Your task to perform on an android device: Search for "dell alienware" on target, select the first entry, and add it to the cart. Image 0: 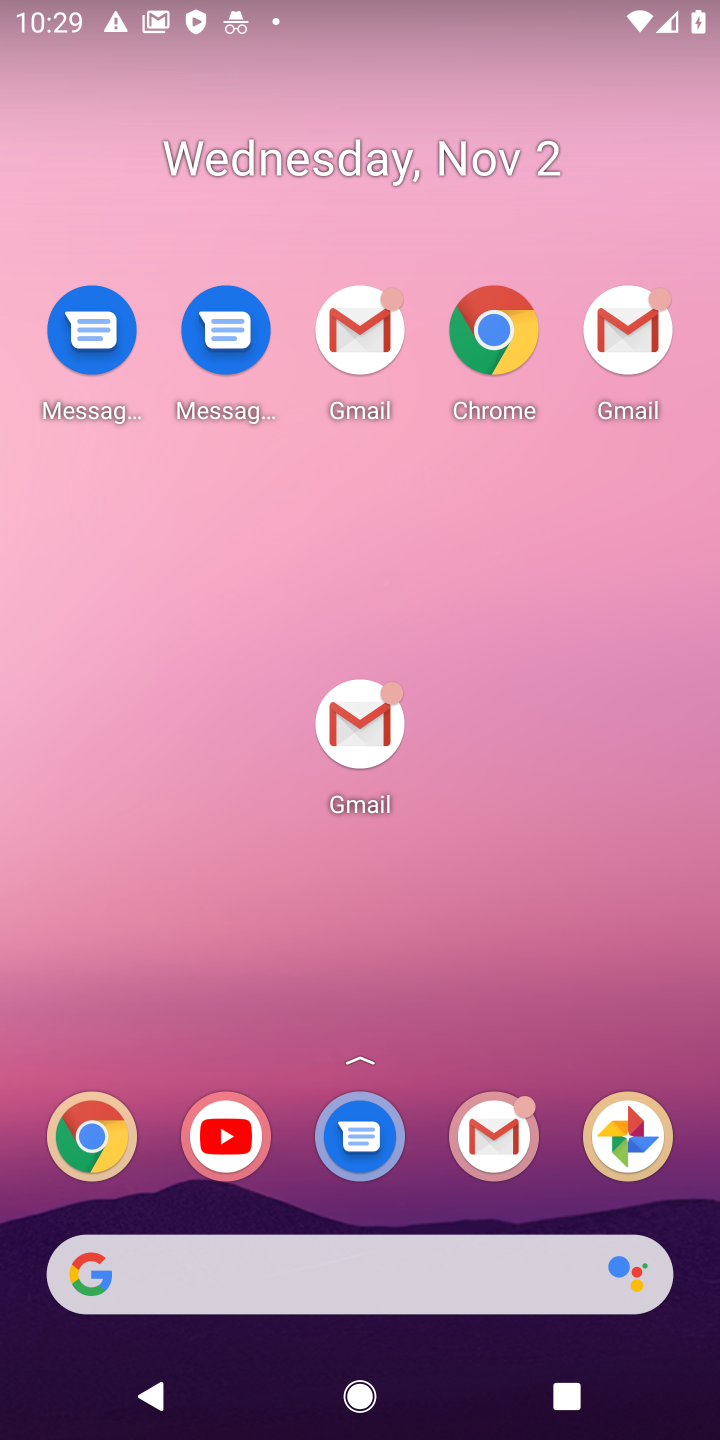
Step 0: drag from (289, 1020) to (313, 490)
Your task to perform on an android device: Search for "dell alienware" on target, select the first entry, and add it to the cart. Image 1: 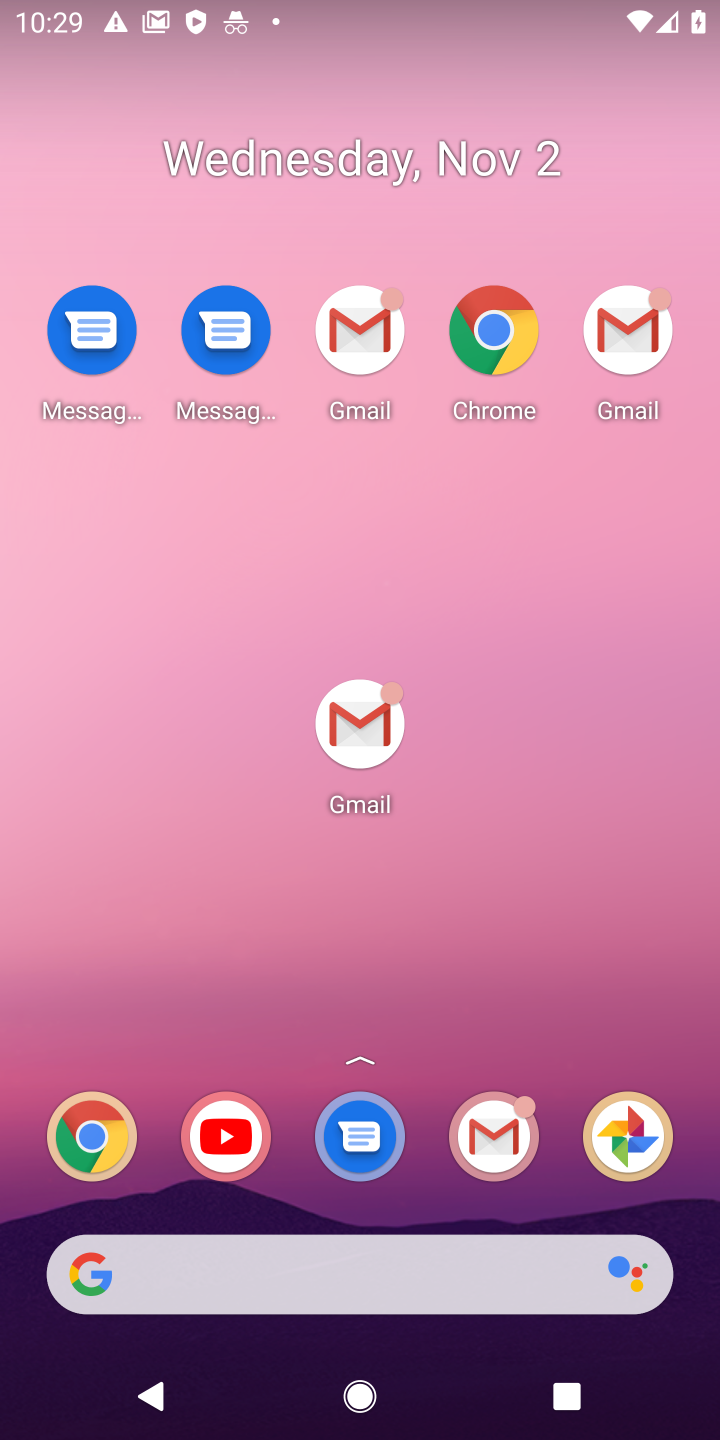
Step 1: drag from (329, 1260) to (335, 472)
Your task to perform on an android device: Search for "dell alienware" on target, select the first entry, and add it to the cart. Image 2: 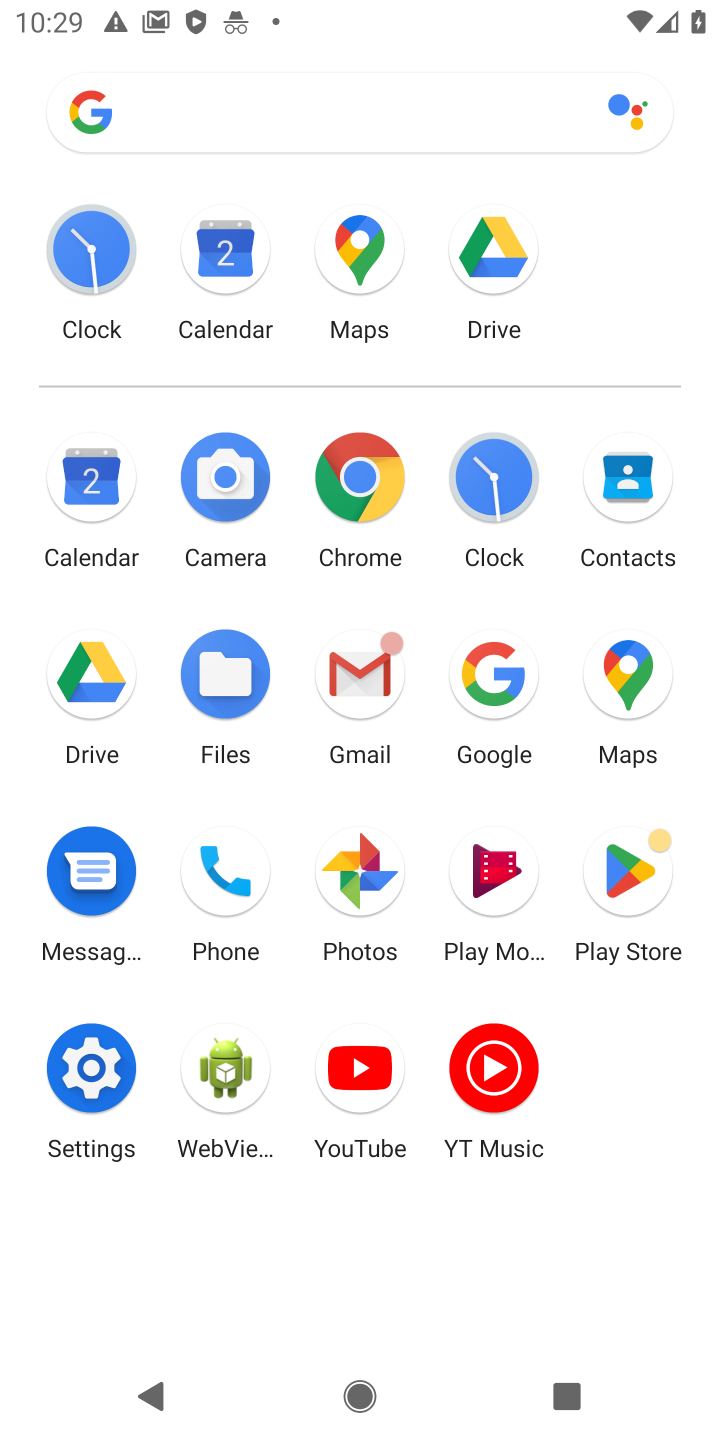
Step 2: click (486, 642)
Your task to perform on an android device: Search for "dell alienware" on target, select the first entry, and add it to the cart. Image 3: 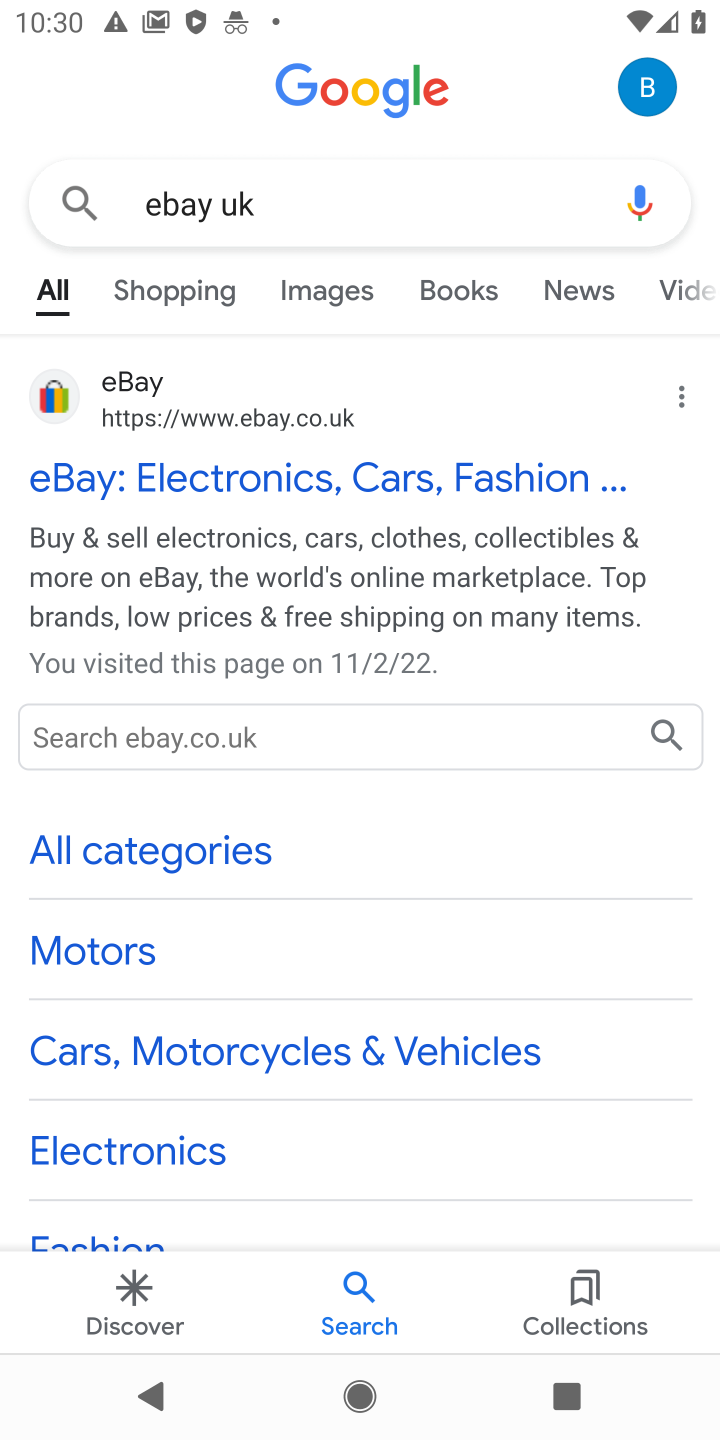
Step 3: click (308, 196)
Your task to perform on an android device: Search for "dell alienware" on target, select the first entry, and add it to the cart. Image 4: 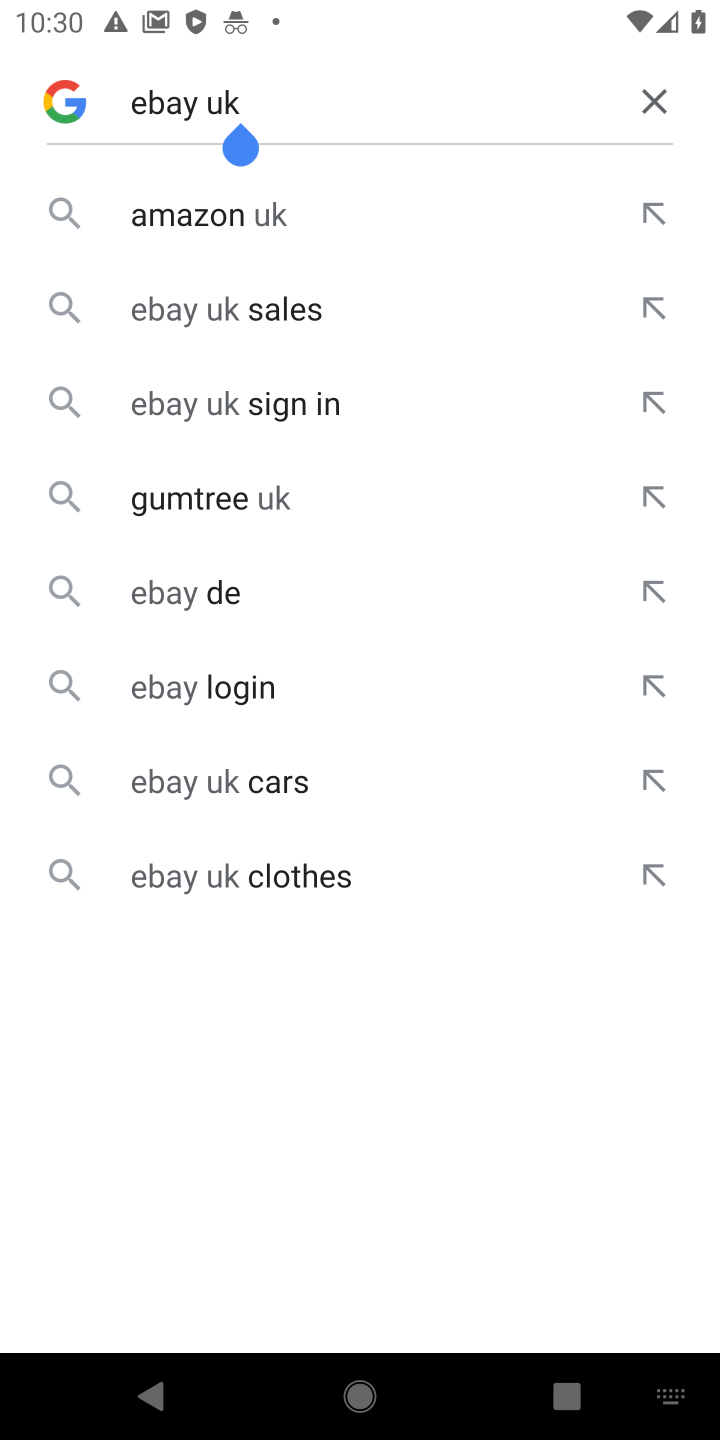
Step 4: click (662, 88)
Your task to perform on an android device: Search for "dell alienware" on target, select the first entry, and add it to the cart. Image 5: 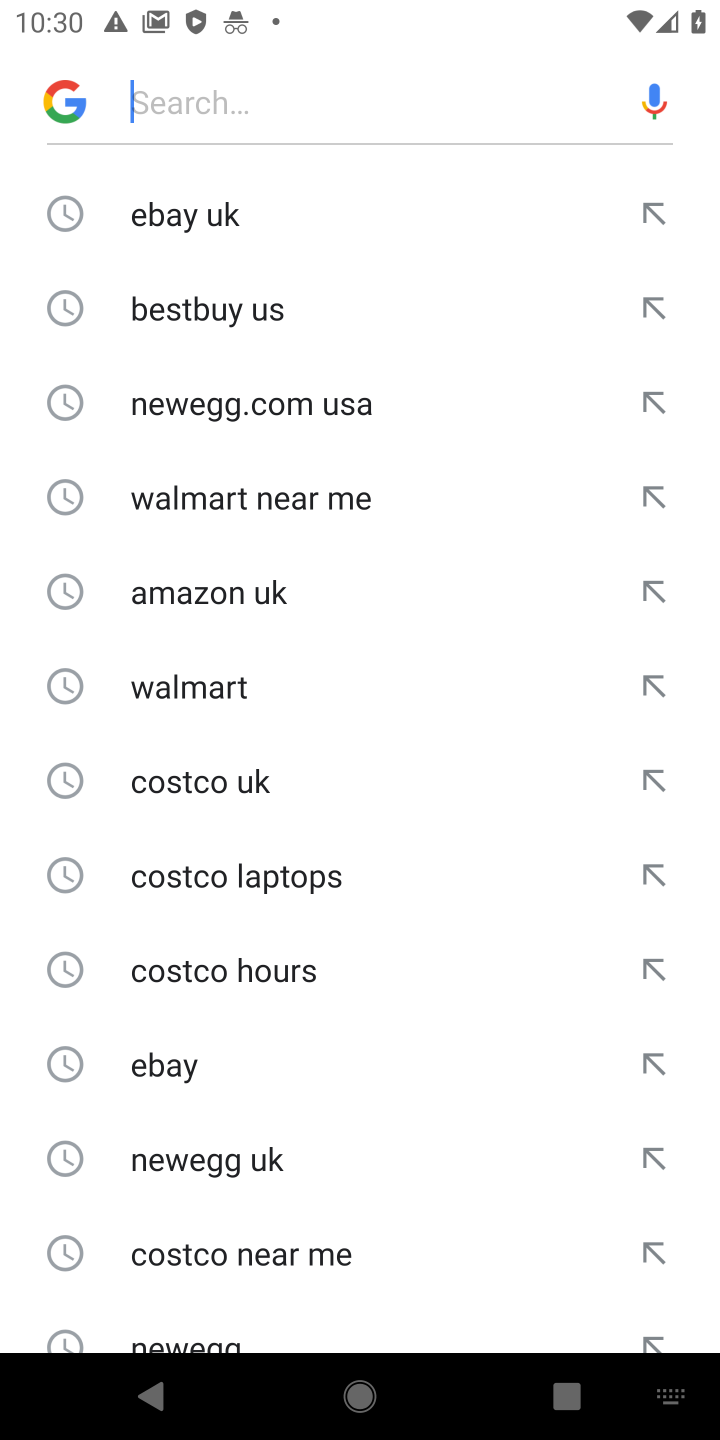
Step 5: click (418, 88)
Your task to perform on an android device: Search for "dell alienware" on target, select the first entry, and add it to the cart. Image 6: 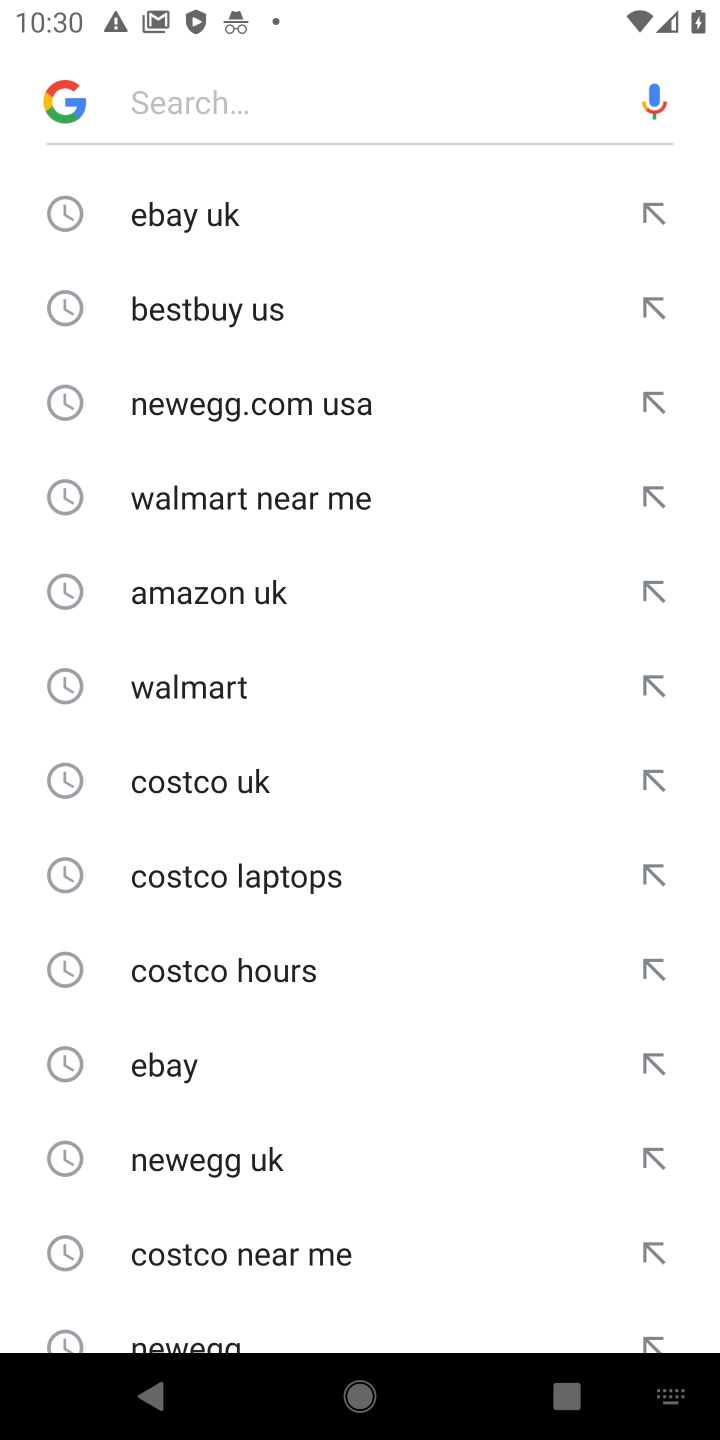
Step 6: click (307, 79)
Your task to perform on an android device: Search for "dell alienware" on target, select the first entry, and add it to the cart. Image 7: 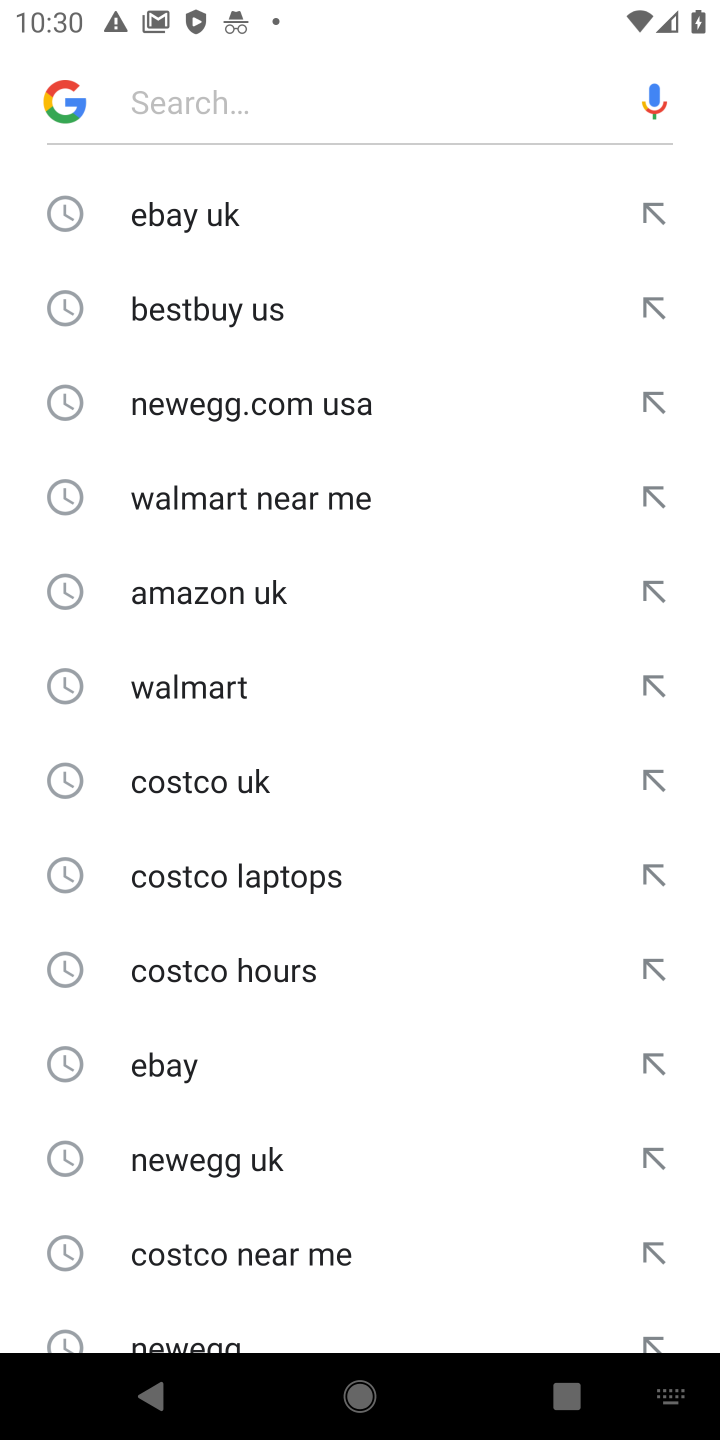
Step 7: type "target "
Your task to perform on an android device: Search for "dell alienware" on target, select the first entry, and add it to the cart. Image 8: 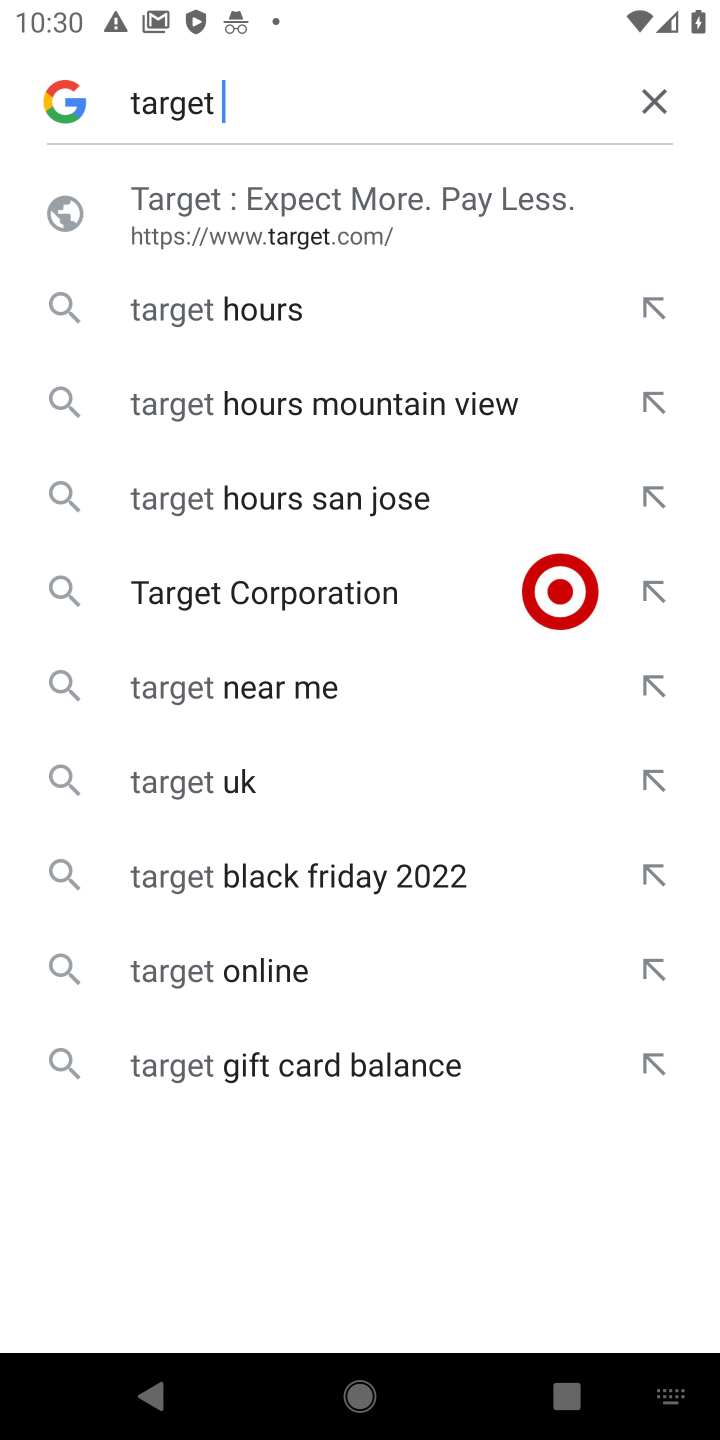
Step 8: click (215, 224)
Your task to perform on an android device: Search for "dell alienware" on target, select the first entry, and add it to the cart. Image 9: 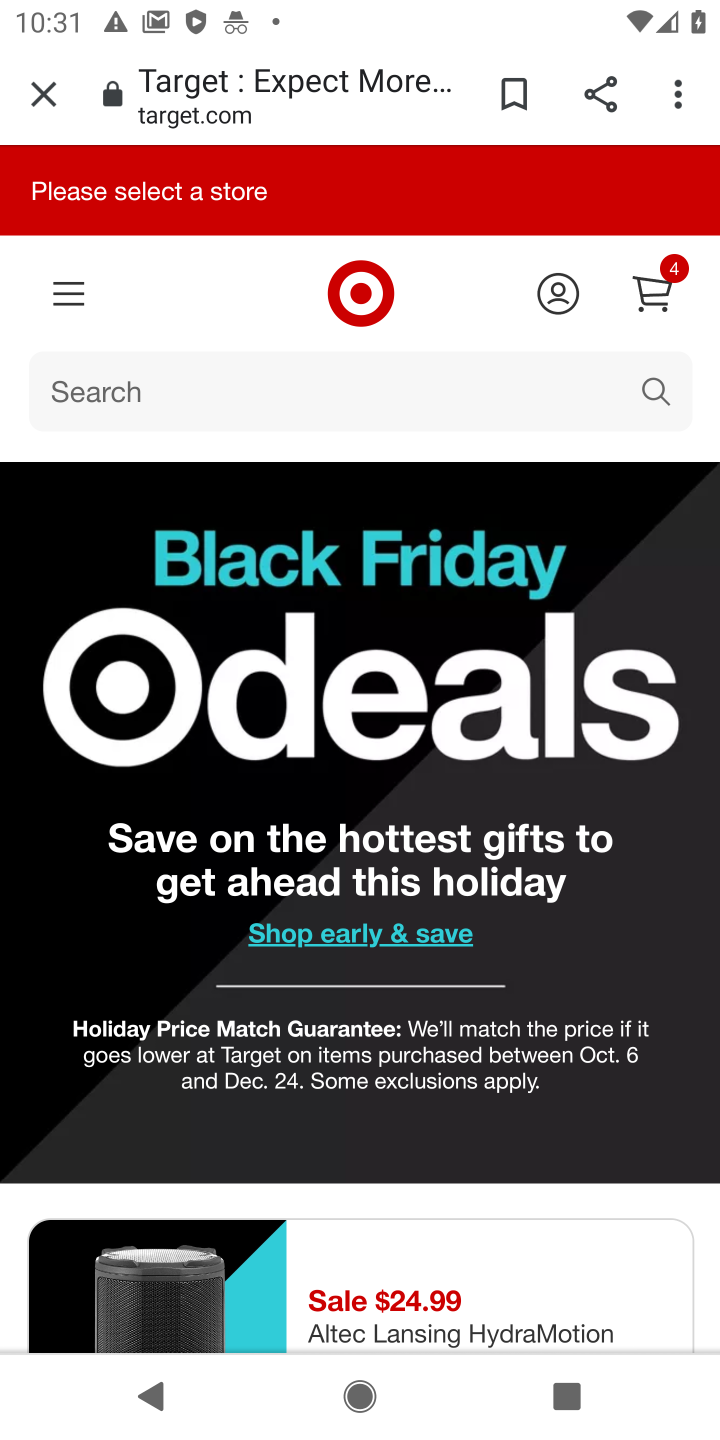
Step 9: drag from (302, 1209) to (377, 302)
Your task to perform on an android device: Search for "dell alienware" on target, select the first entry, and add it to the cart. Image 10: 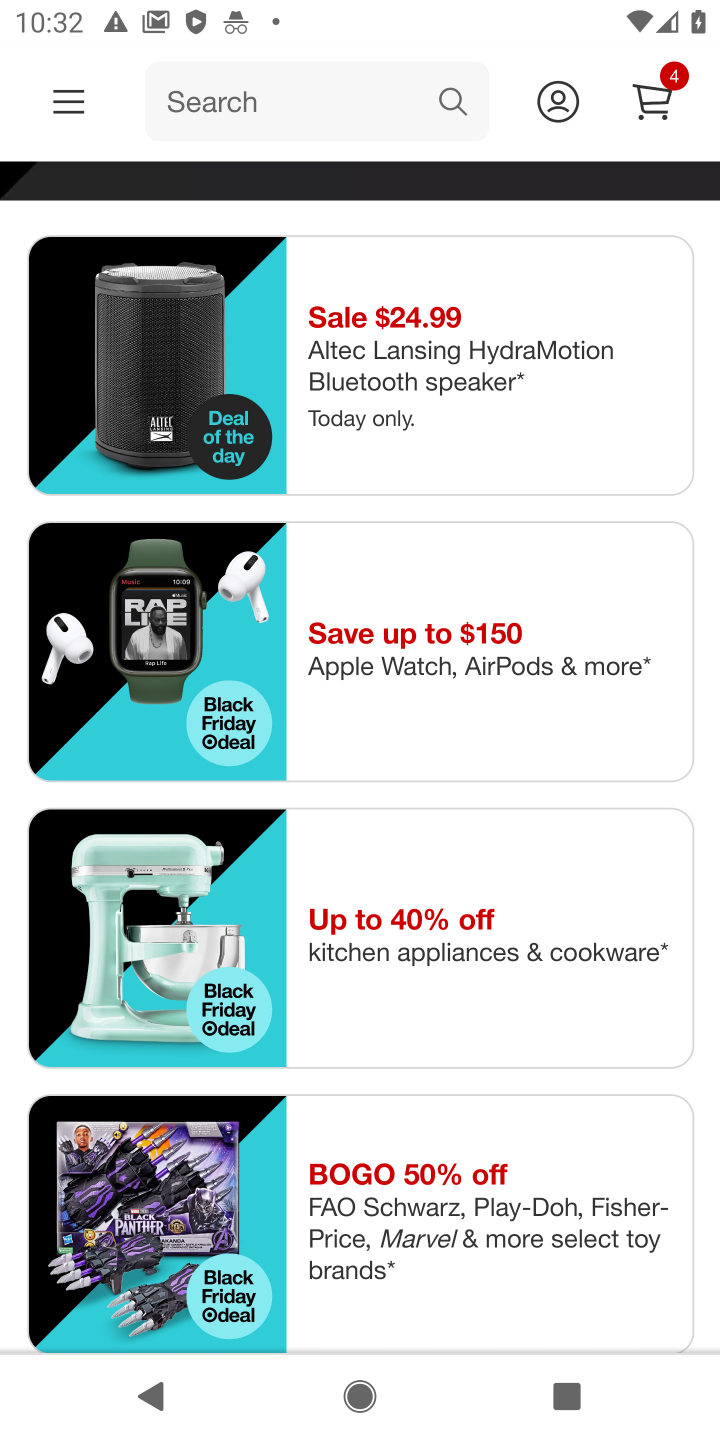
Step 10: click (215, 86)
Your task to perform on an android device: Search for "dell alienware" on target, select the first entry, and add it to the cart. Image 11: 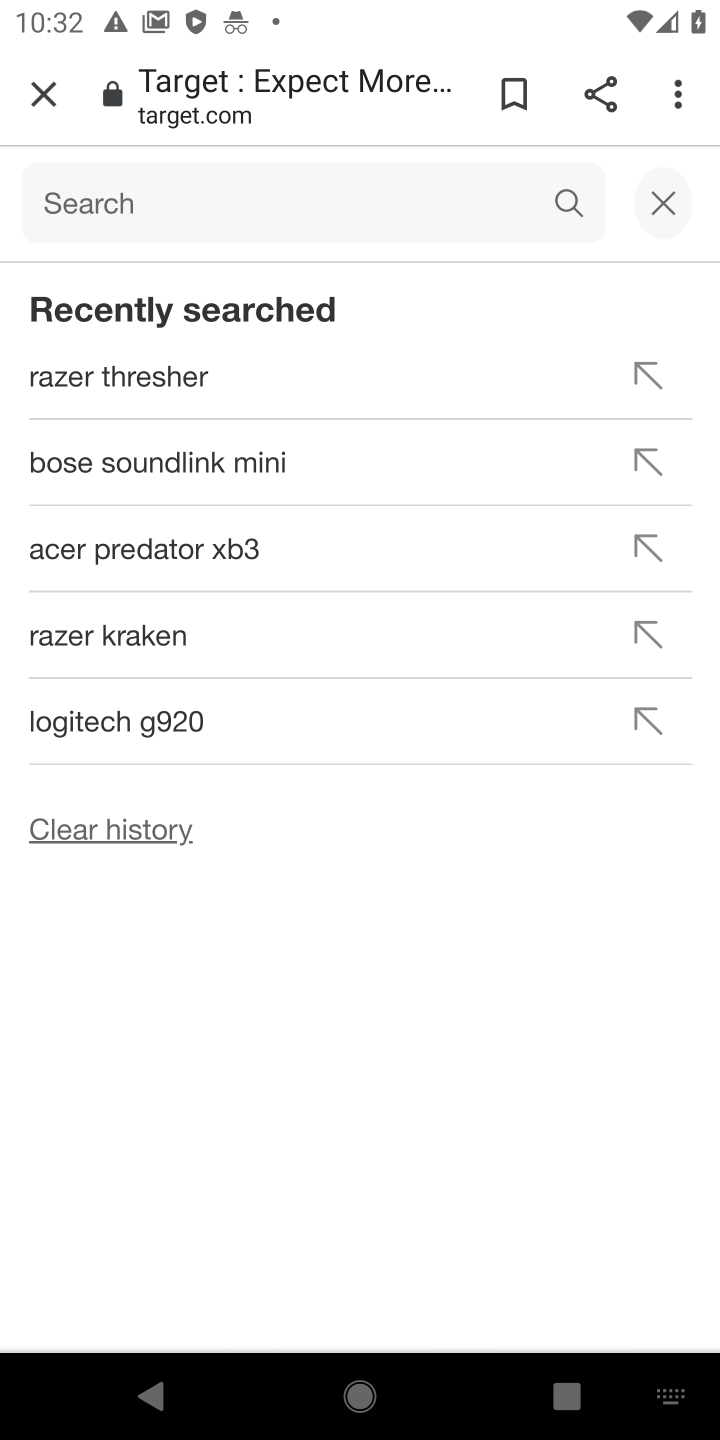
Step 11: click (263, 201)
Your task to perform on an android device: Search for "dell alienware" on target, select the first entry, and add it to the cart. Image 12: 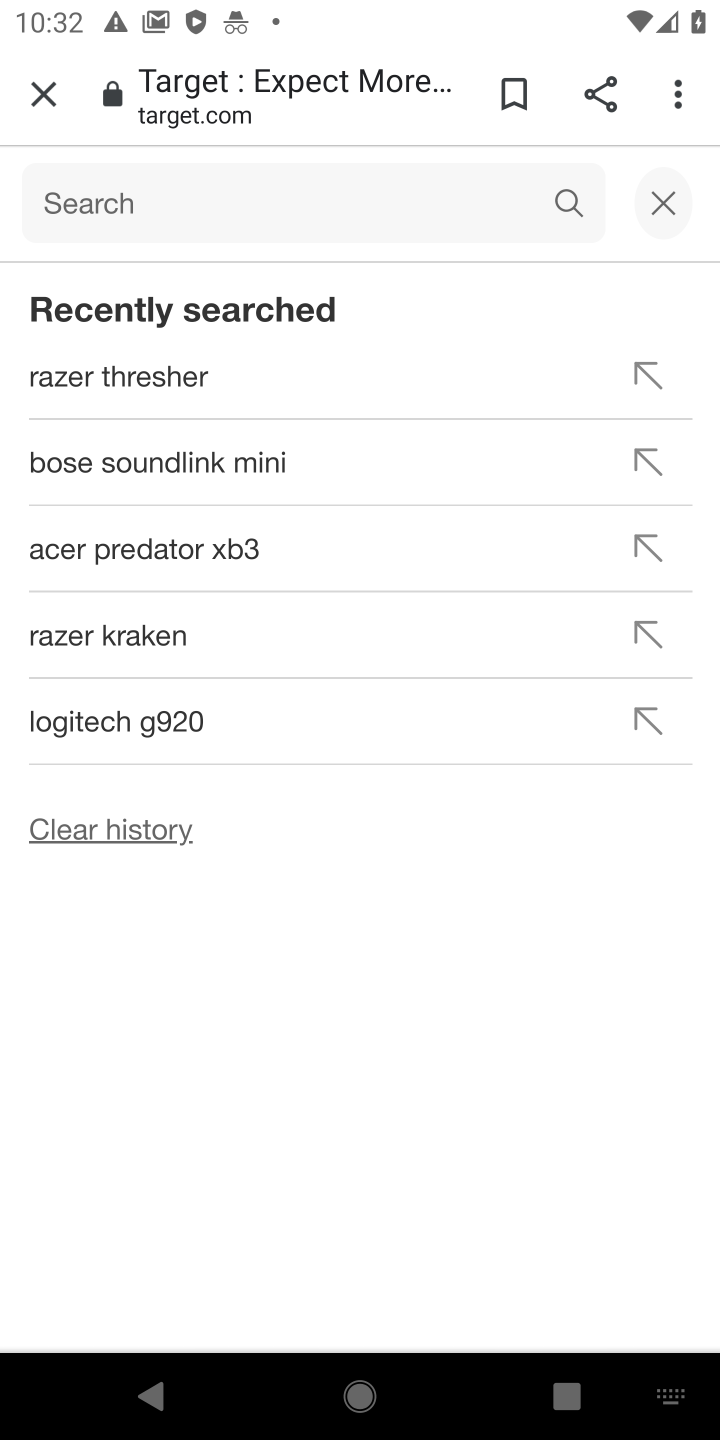
Step 12: type "dell alienware "
Your task to perform on an android device: Search for "dell alienware" on target, select the first entry, and add it to the cart. Image 13: 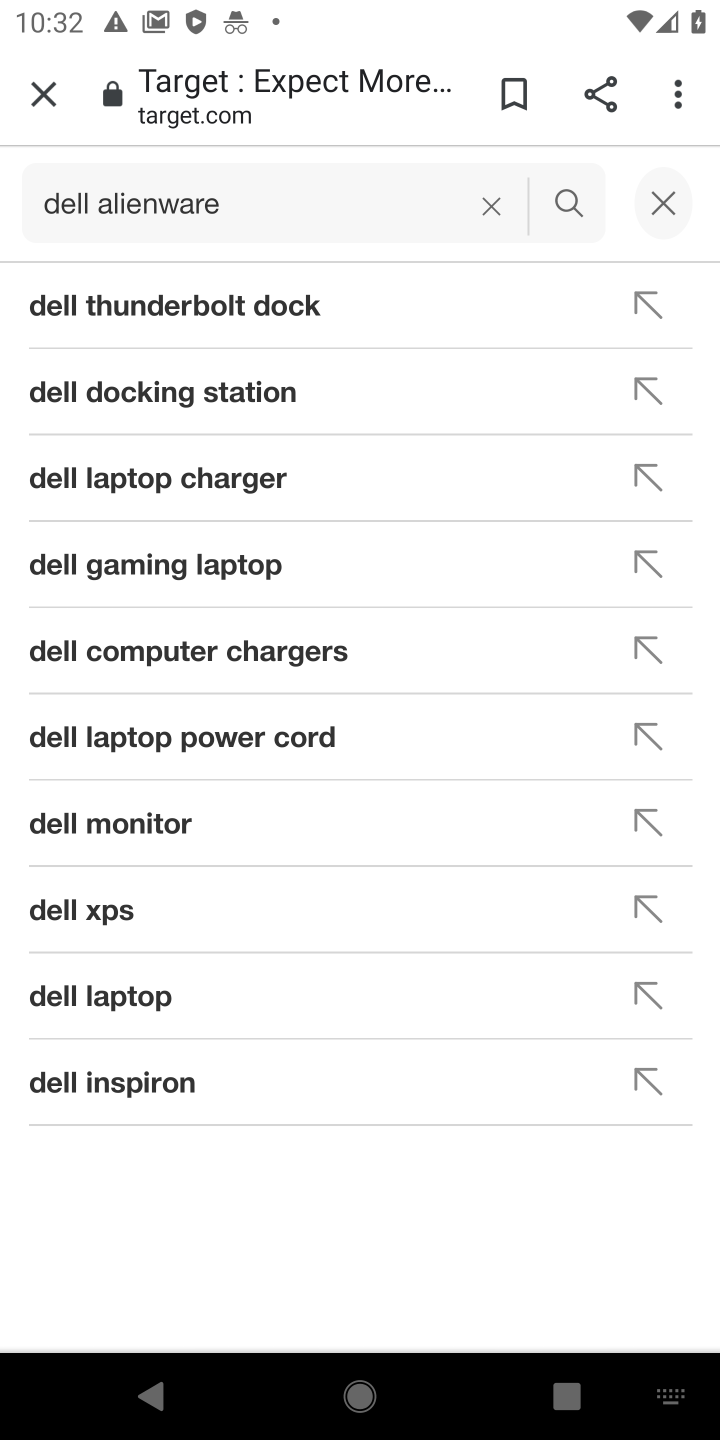
Step 13: click (254, 295)
Your task to perform on an android device: Search for "dell alienware" on target, select the first entry, and add it to the cart. Image 14: 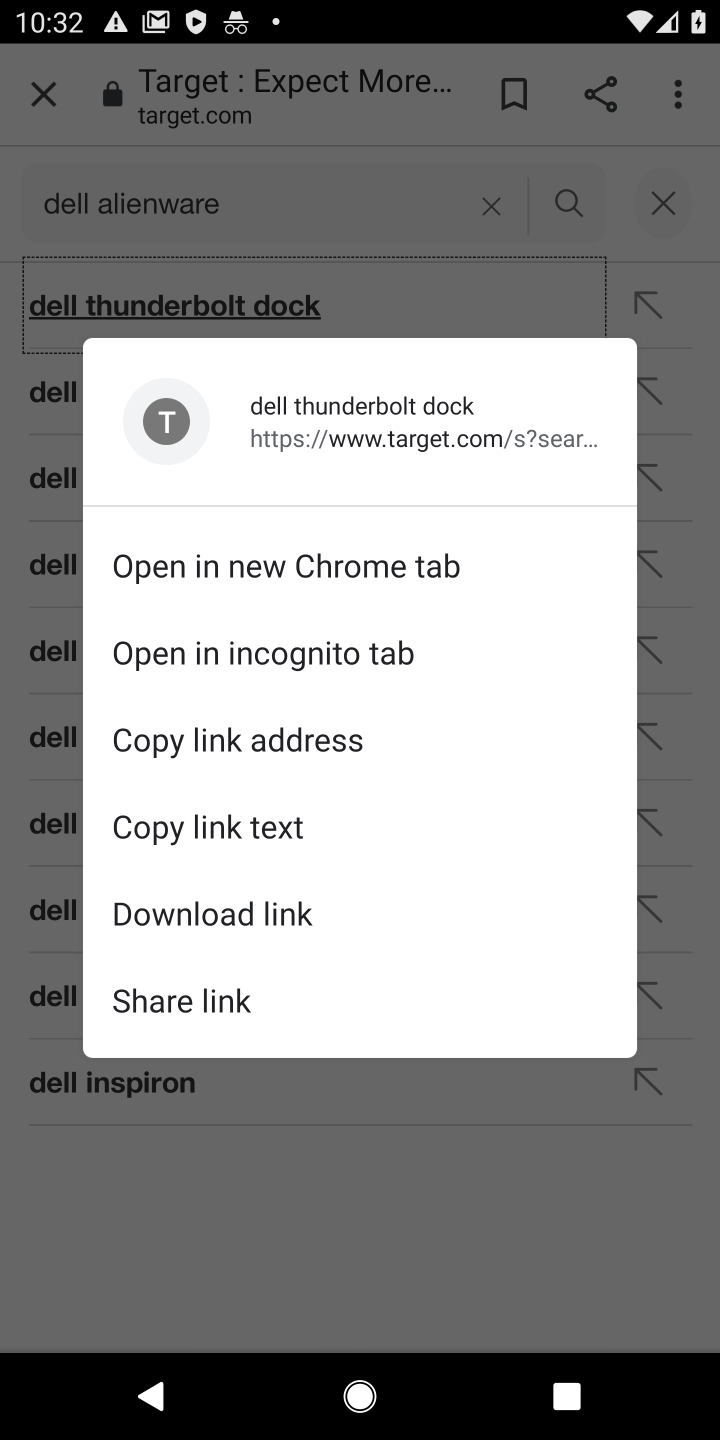
Step 14: click (614, 243)
Your task to perform on an android device: Search for "dell alienware" on target, select the first entry, and add it to the cart. Image 15: 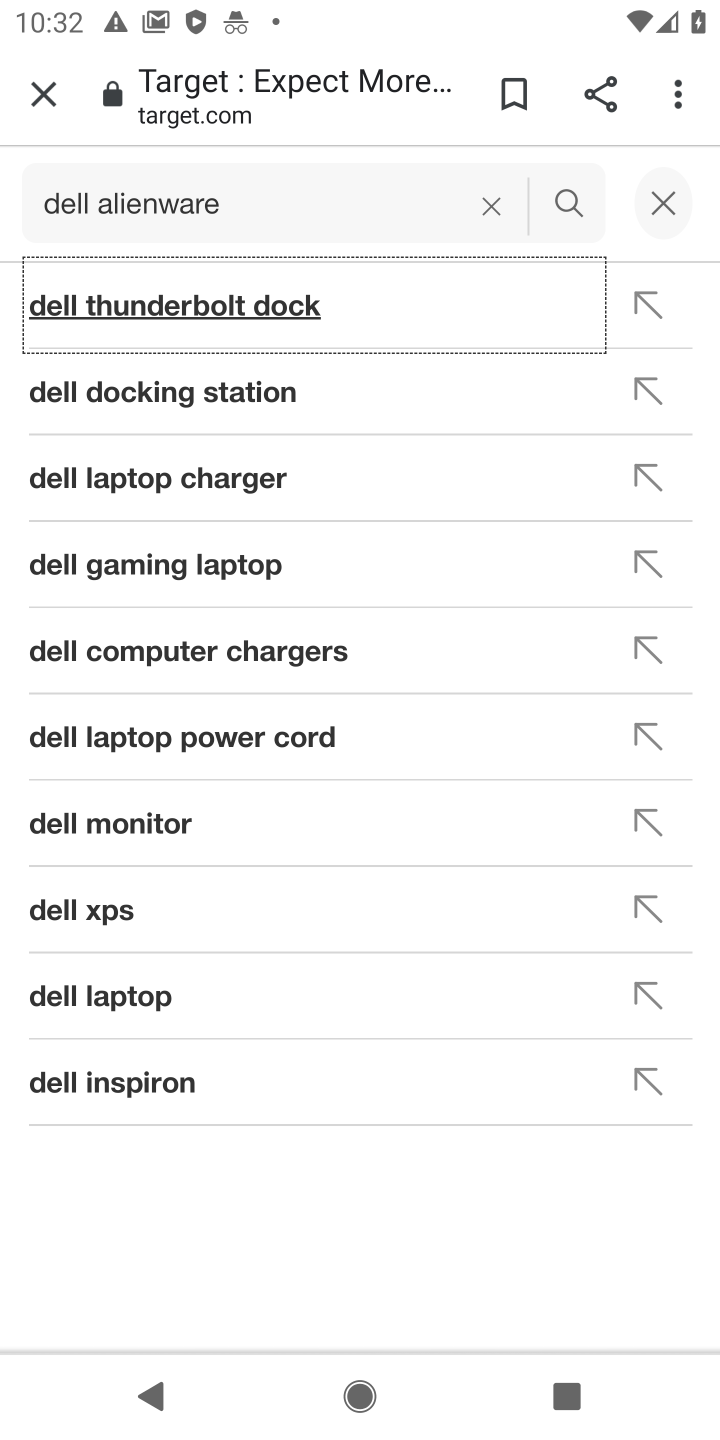
Step 15: click (558, 188)
Your task to perform on an android device: Search for "dell alienware" on target, select the first entry, and add it to the cart. Image 16: 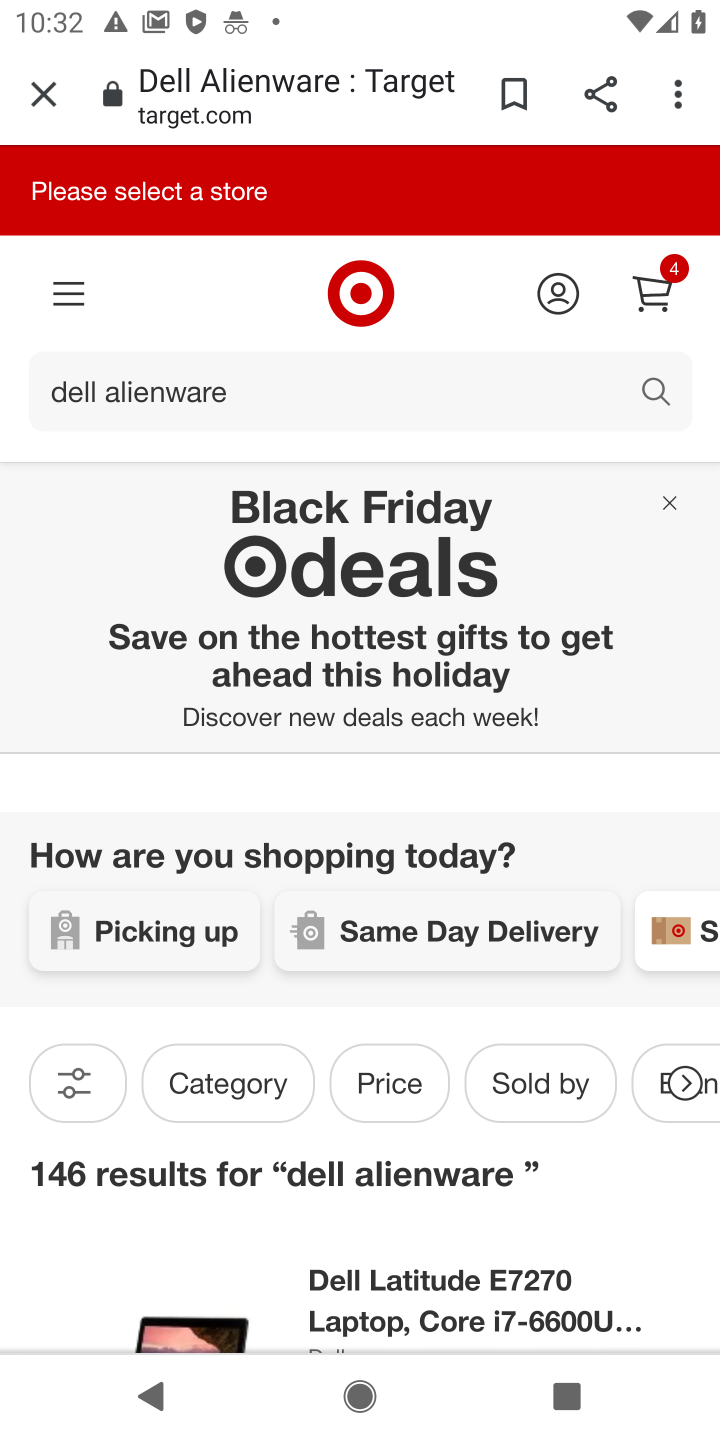
Step 16: drag from (420, 1208) to (492, 478)
Your task to perform on an android device: Search for "dell alienware" on target, select the first entry, and add it to the cart. Image 17: 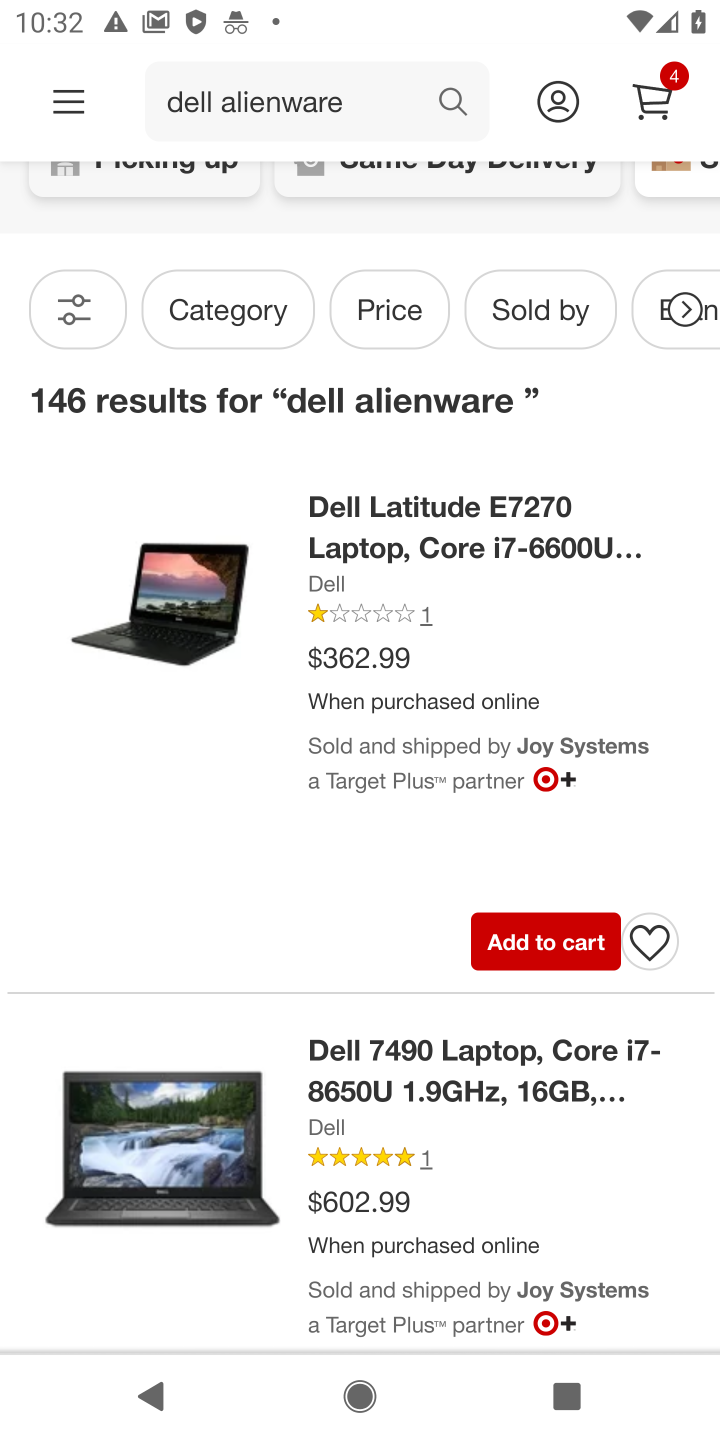
Step 17: drag from (372, 1167) to (394, 544)
Your task to perform on an android device: Search for "dell alienware" on target, select the first entry, and add it to the cart. Image 18: 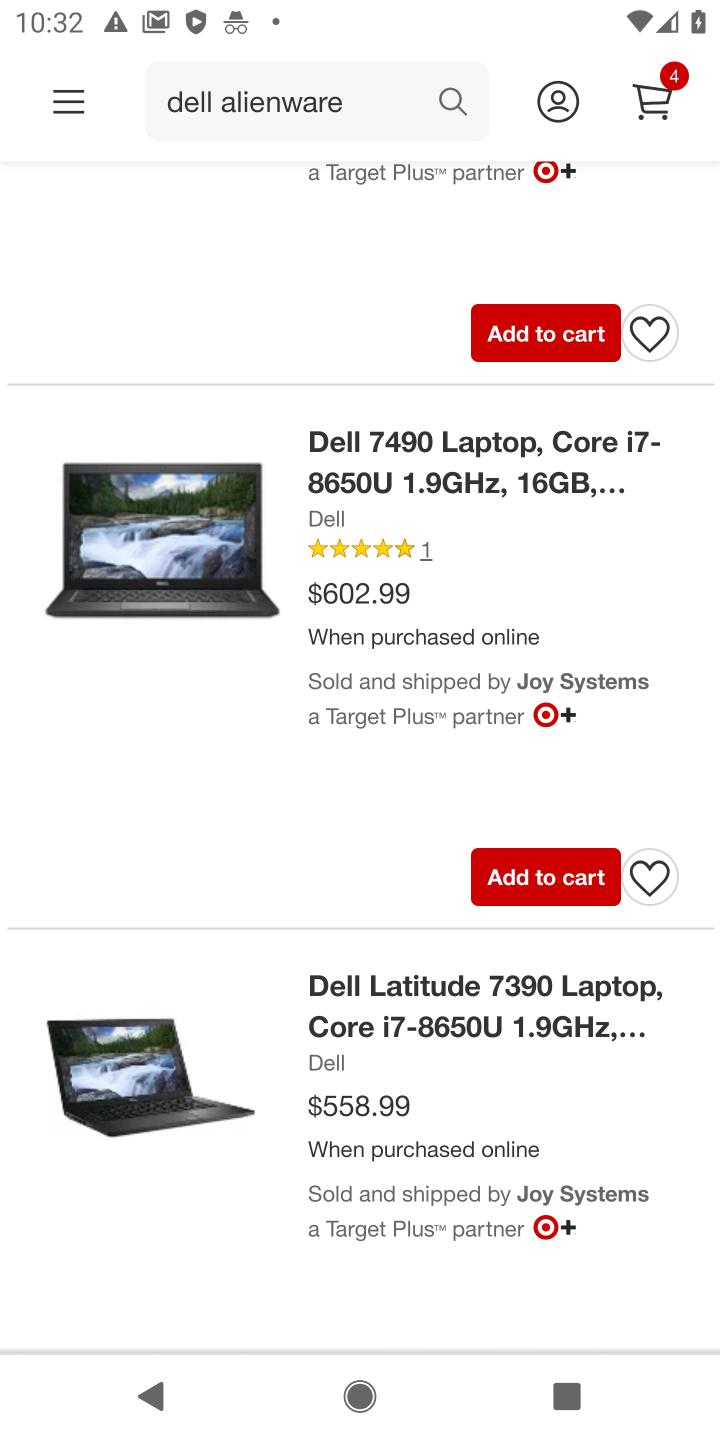
Step 18: click (451, 85)
Your task to perform on an android device: Search for "dell alienware" on target, select the first entry, and add it to the cart. Image 19: 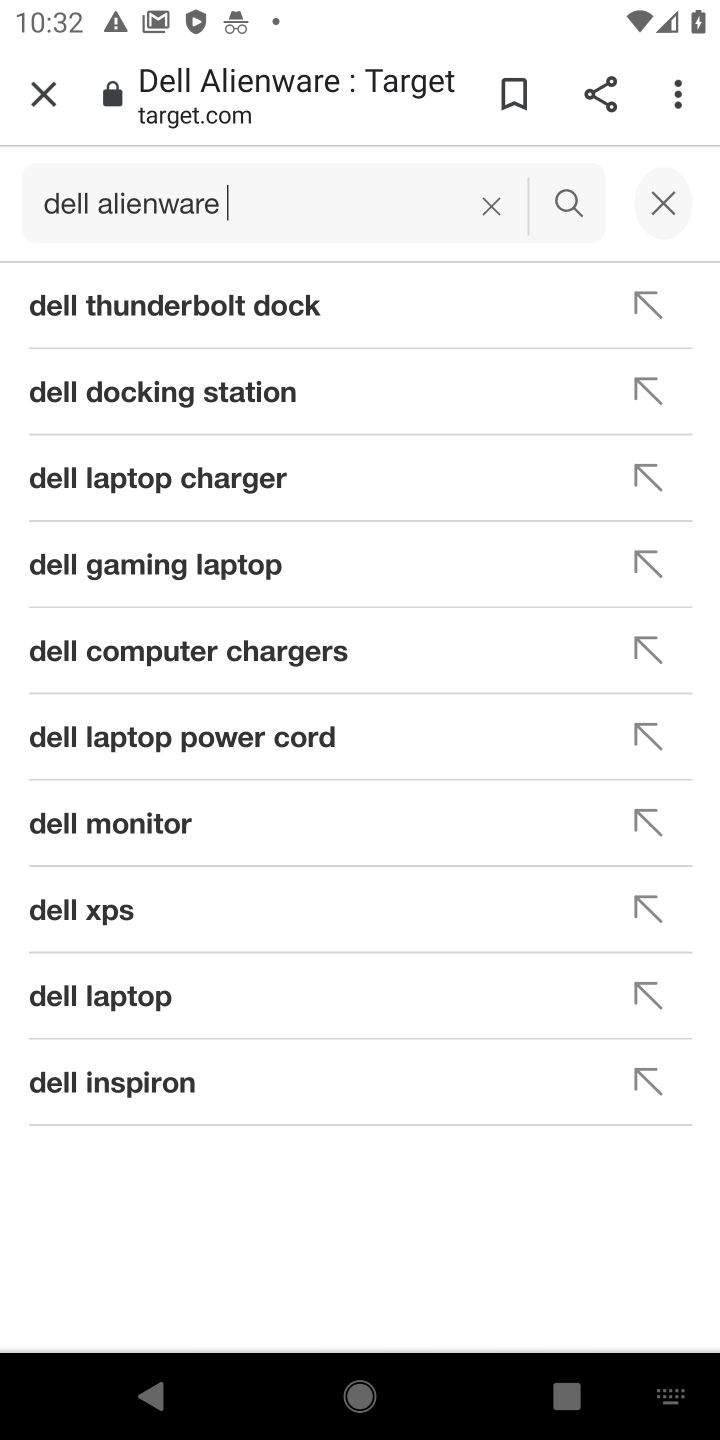
Step 19: click (483, 197)
Your task to perform on an android device: Search for "dell alienware" on target, select the first entry, and add it to the cart. Image 20: 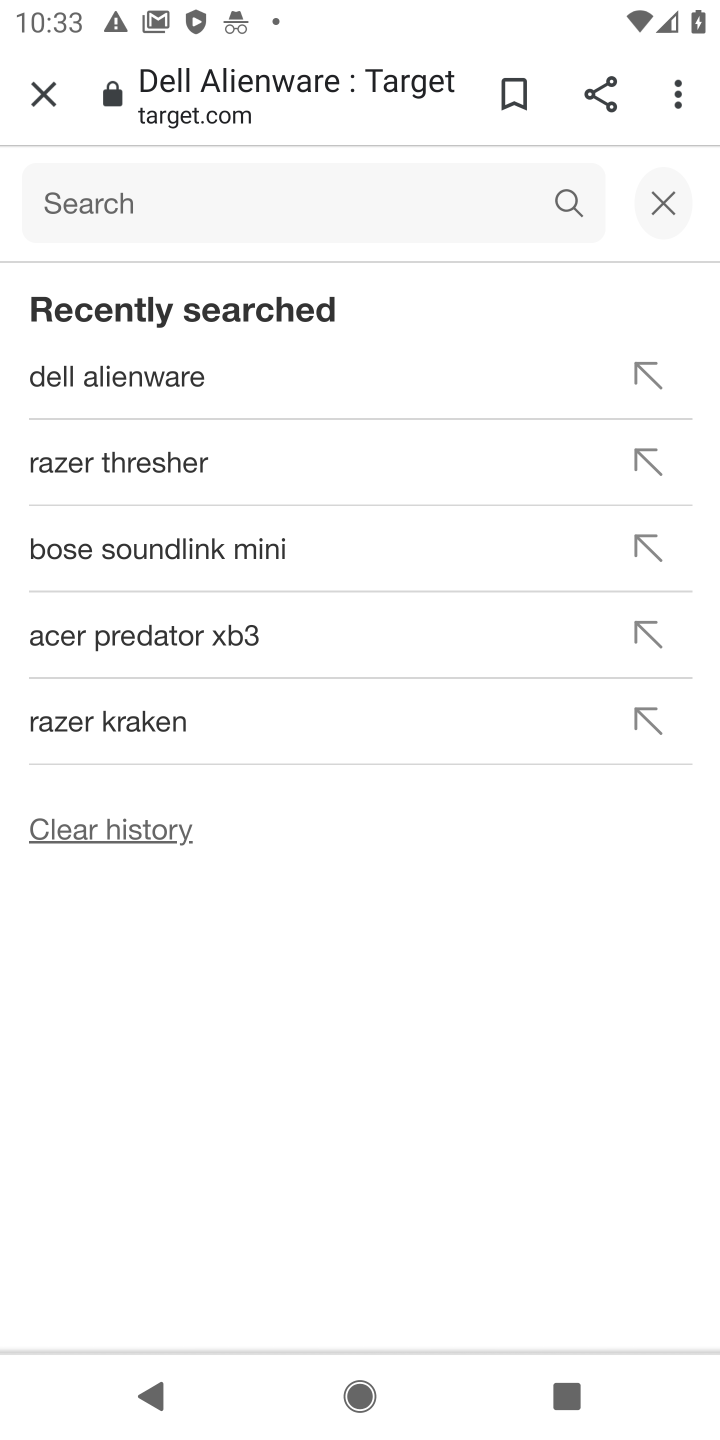
Step 20: click (361, 196)
Your task to perform on an android device: Search for "dell alienware" on target, select the first entry, and add it to the cart. Image 21: 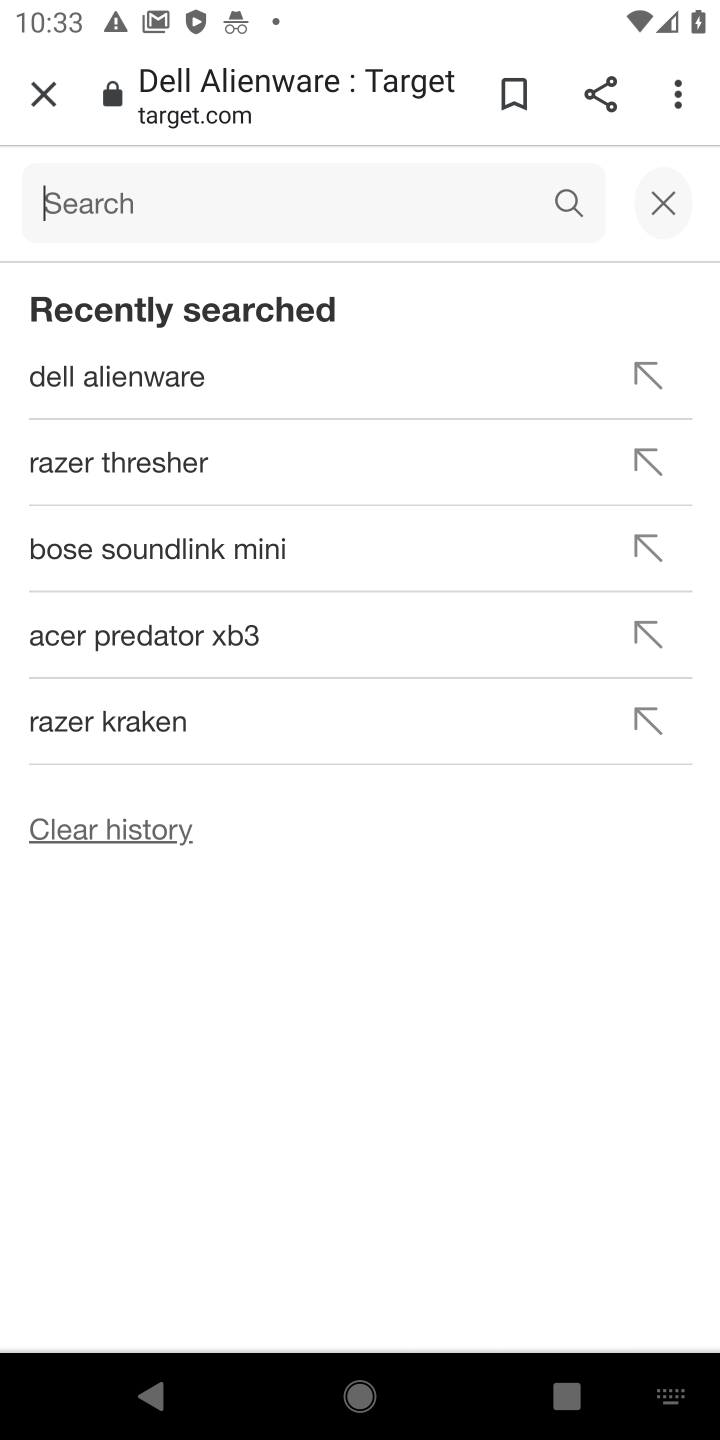
Step 21: type "alienware "
Your task to perform on an android device: Search for "dell alienware" on target, select the first entry, and add it to the cart. Image 22: 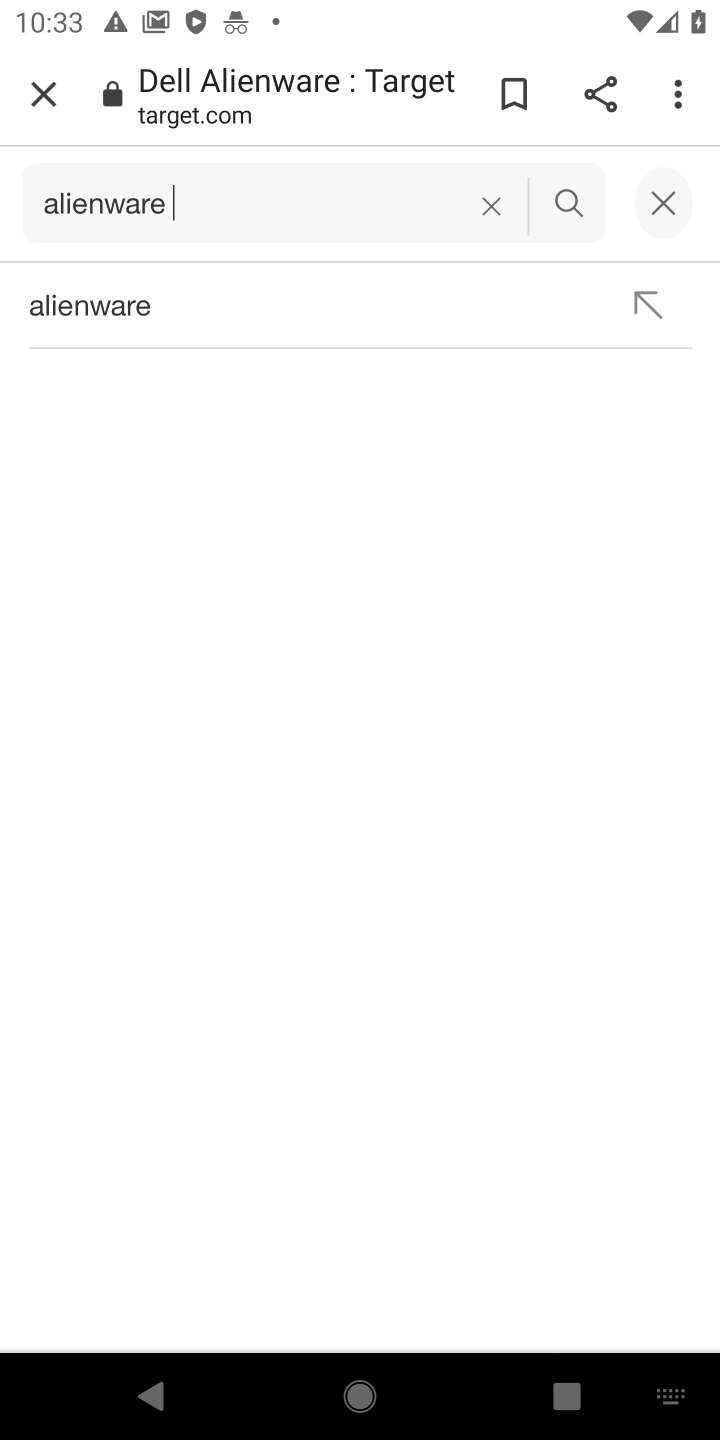
Step 22: click (659, 280)
Your task to perform on an android device: Search for "dell alienware" on target, select the first entry, and add it to the cart. Image 23: 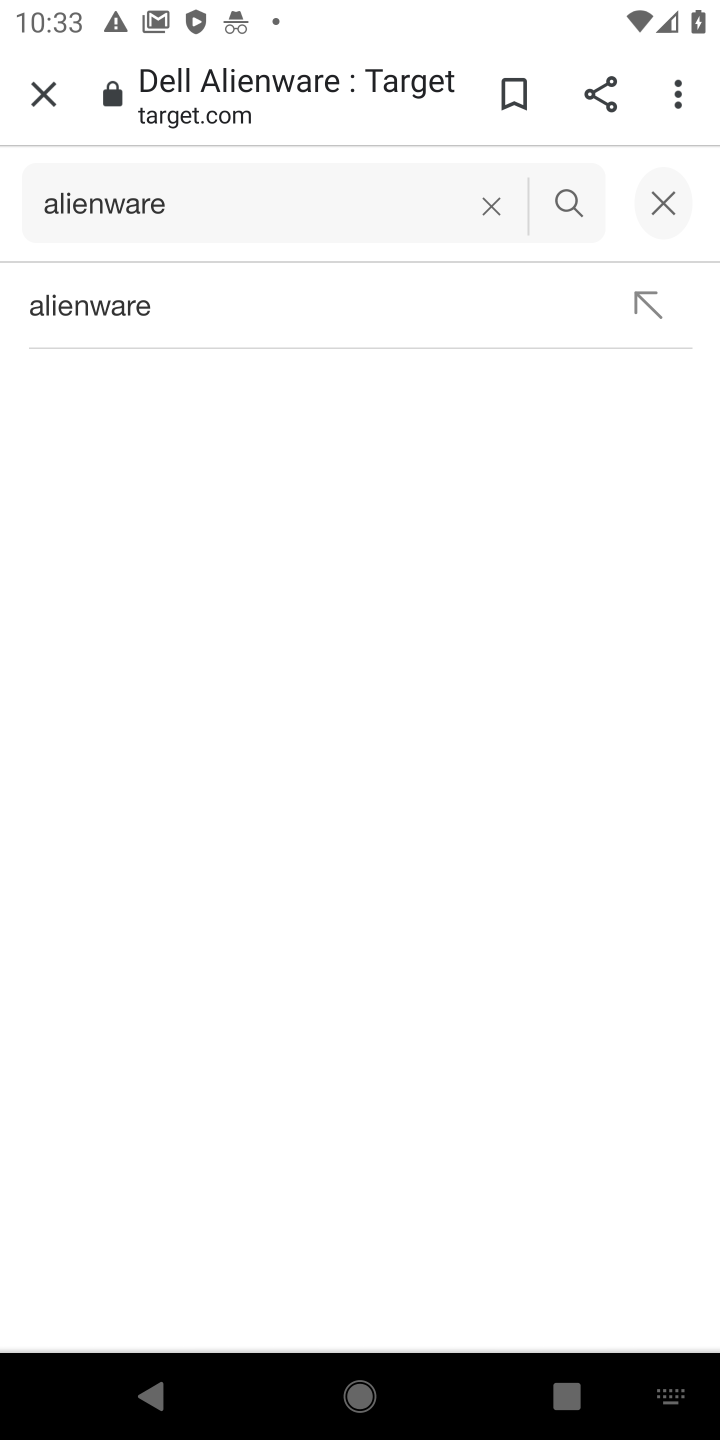
Step 23: click (649, 297)
Your task to perform on an android device: Search for "dell alienware" on target, select the first entry, and add it to the cart. Image 24: 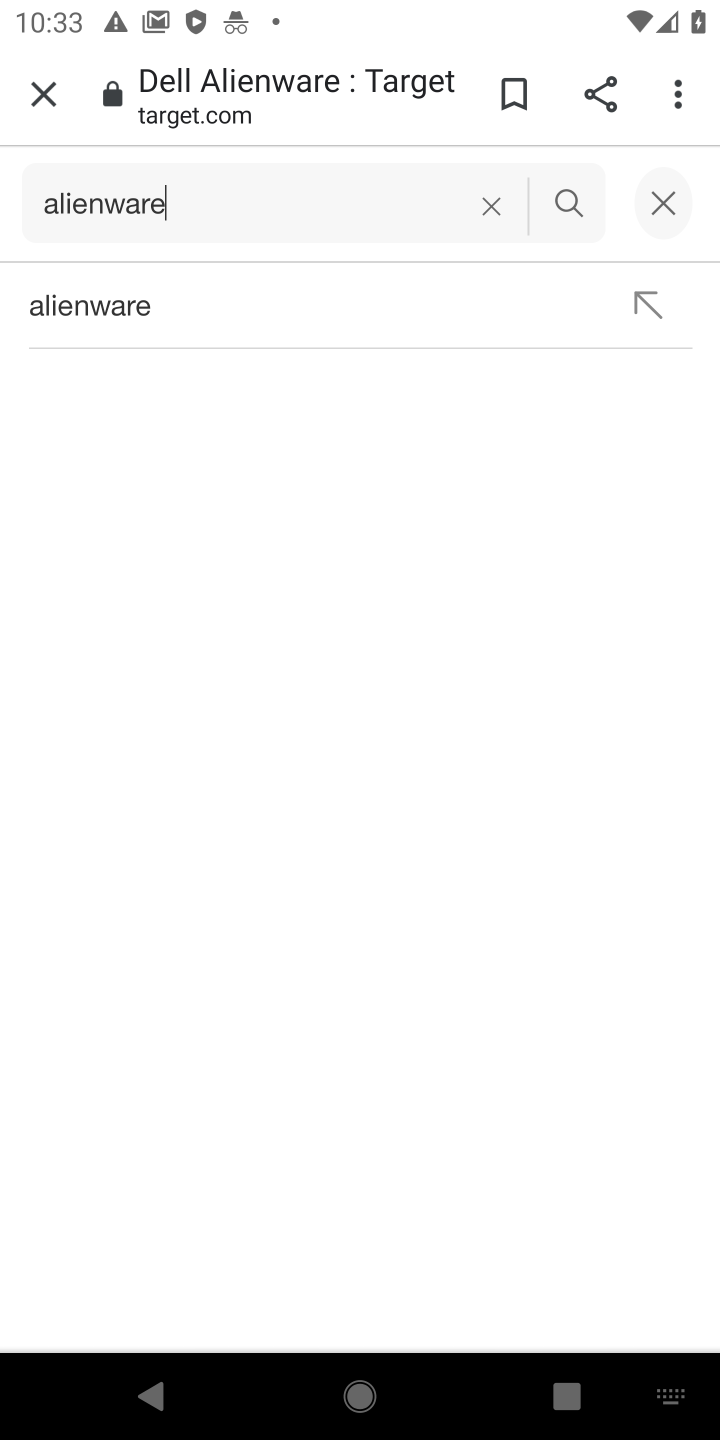
Step 24: drag from (649, 297) to (72, 296)
Your task to perform on an android device: Search for "dell alienware" on target, select the first entry, and add it to the cart. Image 25: 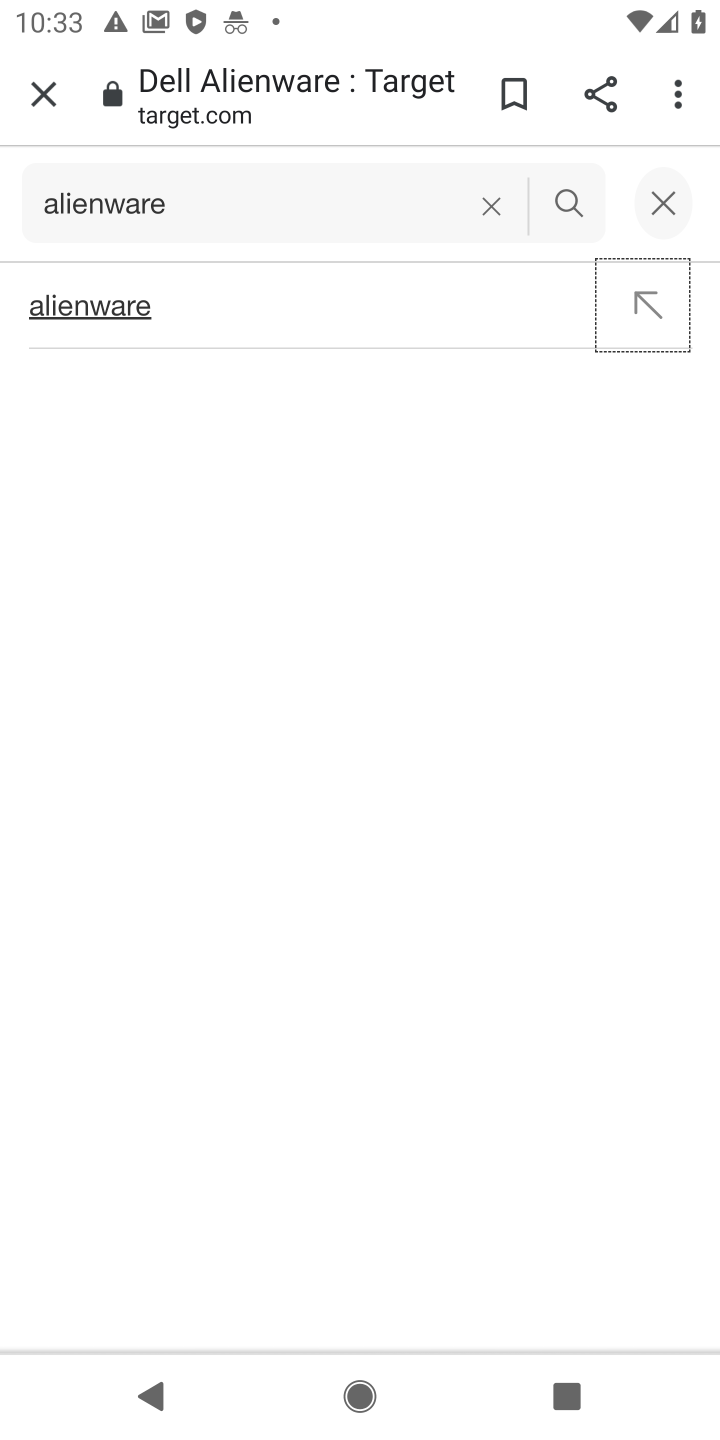
Step 25: click (123, 300)
Your task to perform on an android device: Search for "dell alienware" on target, select the first entry, and add it to the cart. Image 26: 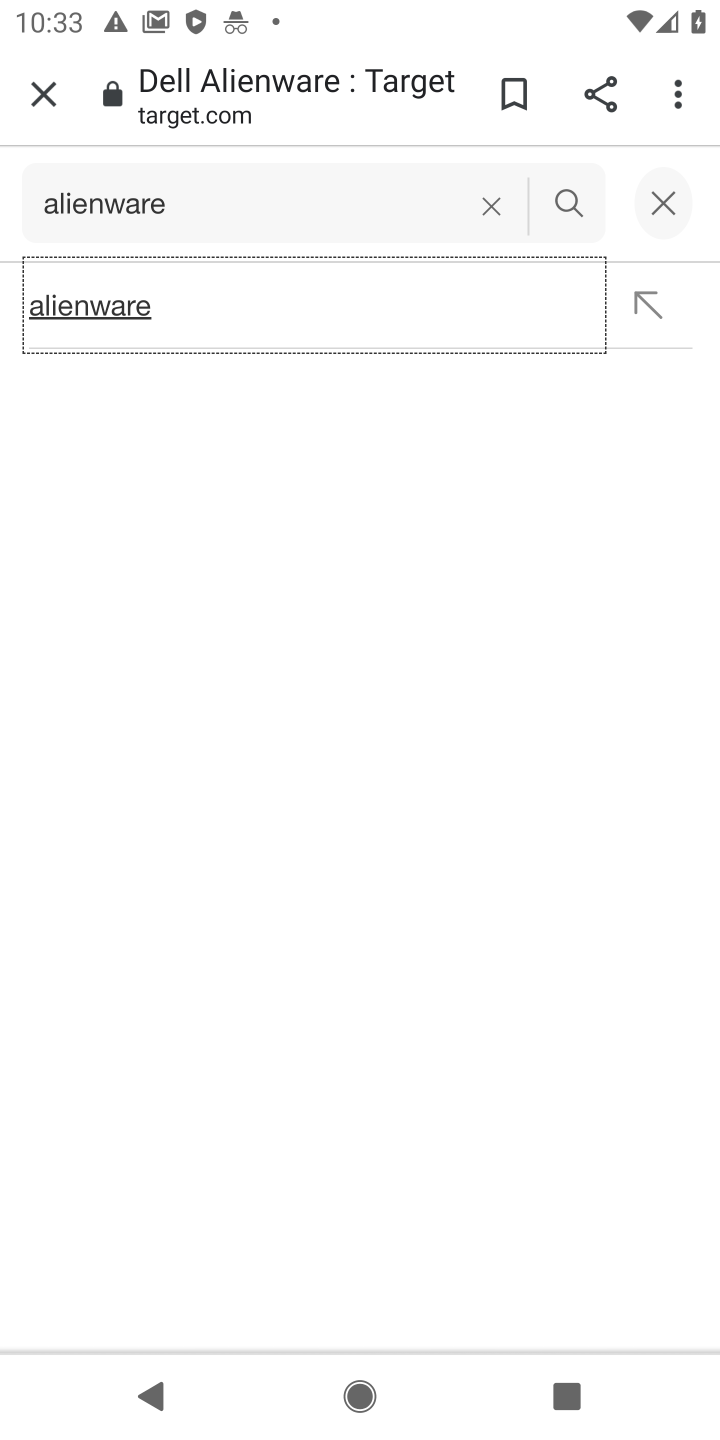
Step 26: click (123, 300)
Your task to perform on an android device: Search for "dell alienware" on target, select the first entry, and add it to the cart. Image 27: 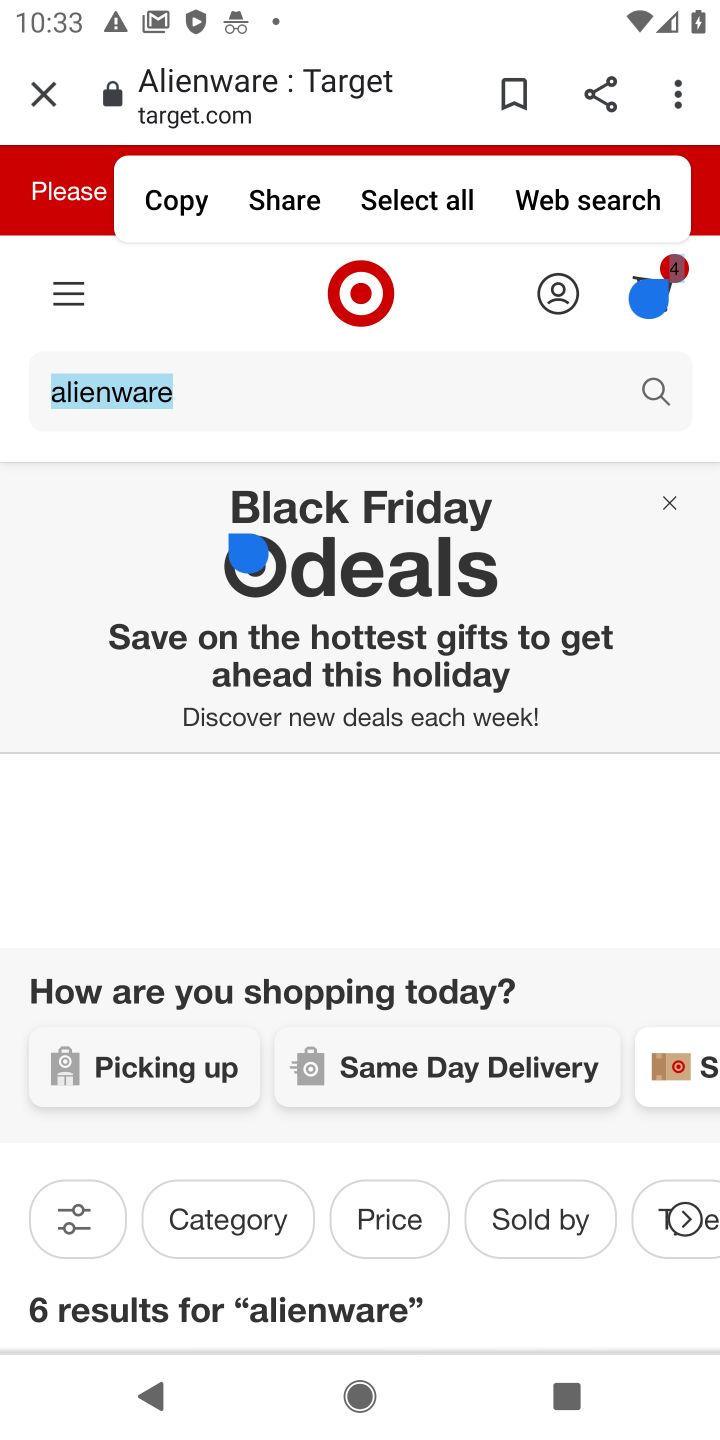
Step 27: drag from (290, 1262) to (333, 410)
Your task to perform on an android device: Search for "dell alienware" on target, select the first entry, and add it to the cart. Image 28: 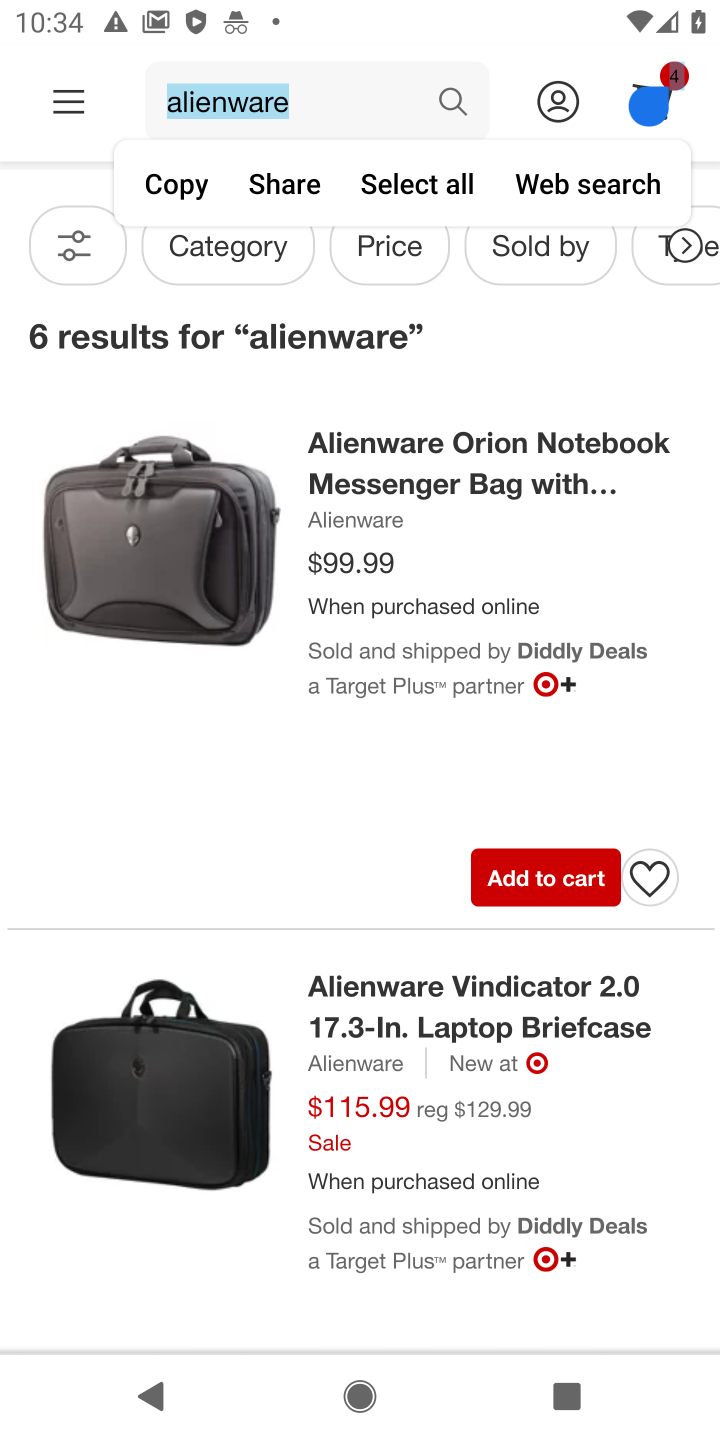
Step 28: drag from (408, 1242) to (441, 424)
Your task to perform on an android device: Search for "dell alienware" on target, select the first entry, and add it to the cart. Image 29: 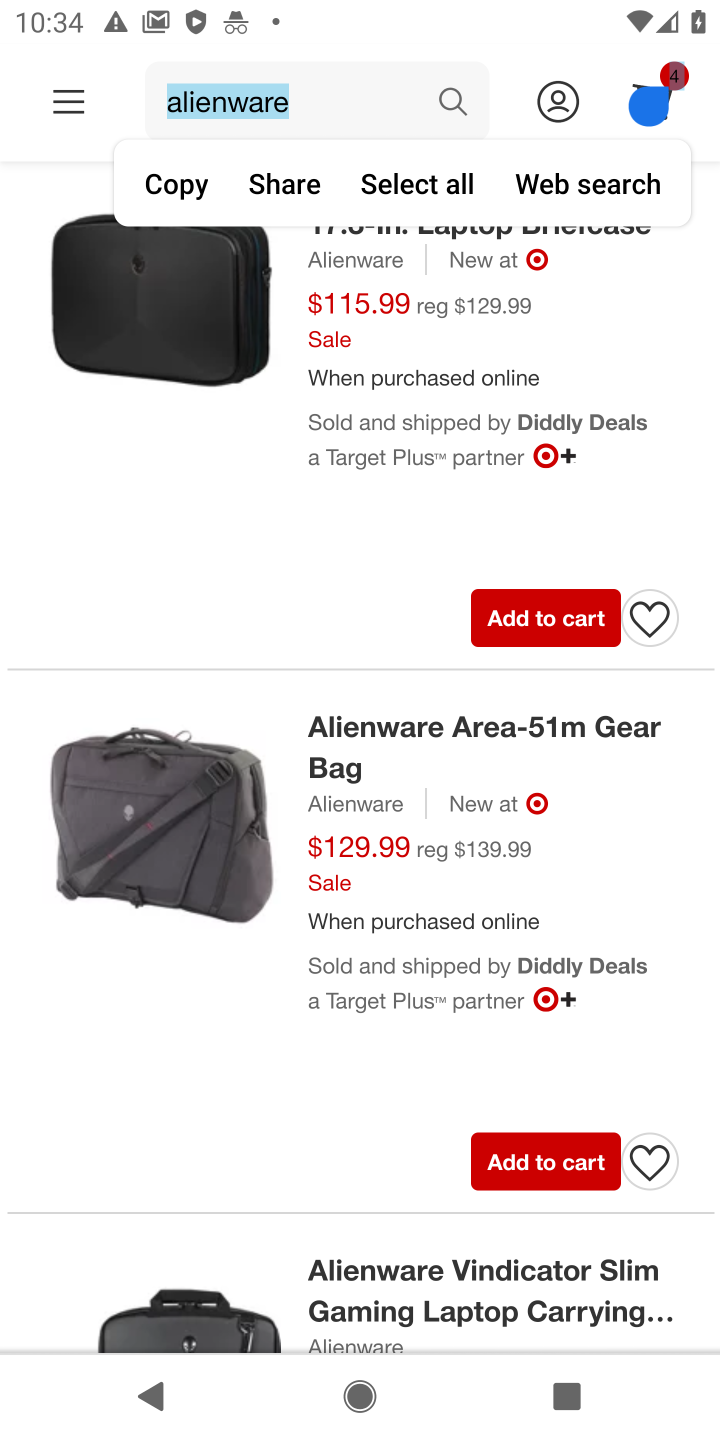
Step 29: click (543, 616)
Your task to perform on an android device: Search for "dell alienware" on target, select the first entry, and add it to the cart. Image 30: 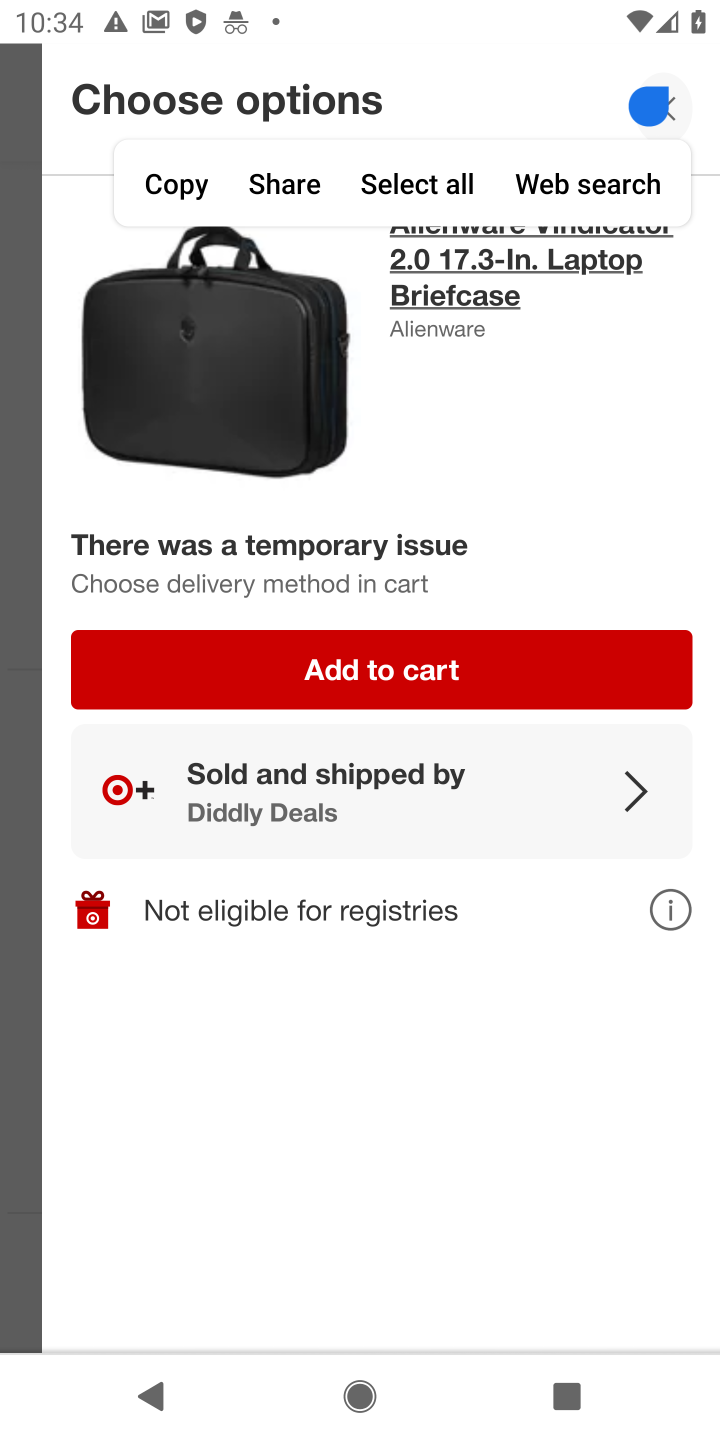
Step 30: click (385, 667)
Your task to perform on an android device: Search for "dell alienware" on target, select the first entry, and add it to the cart. Image 31: 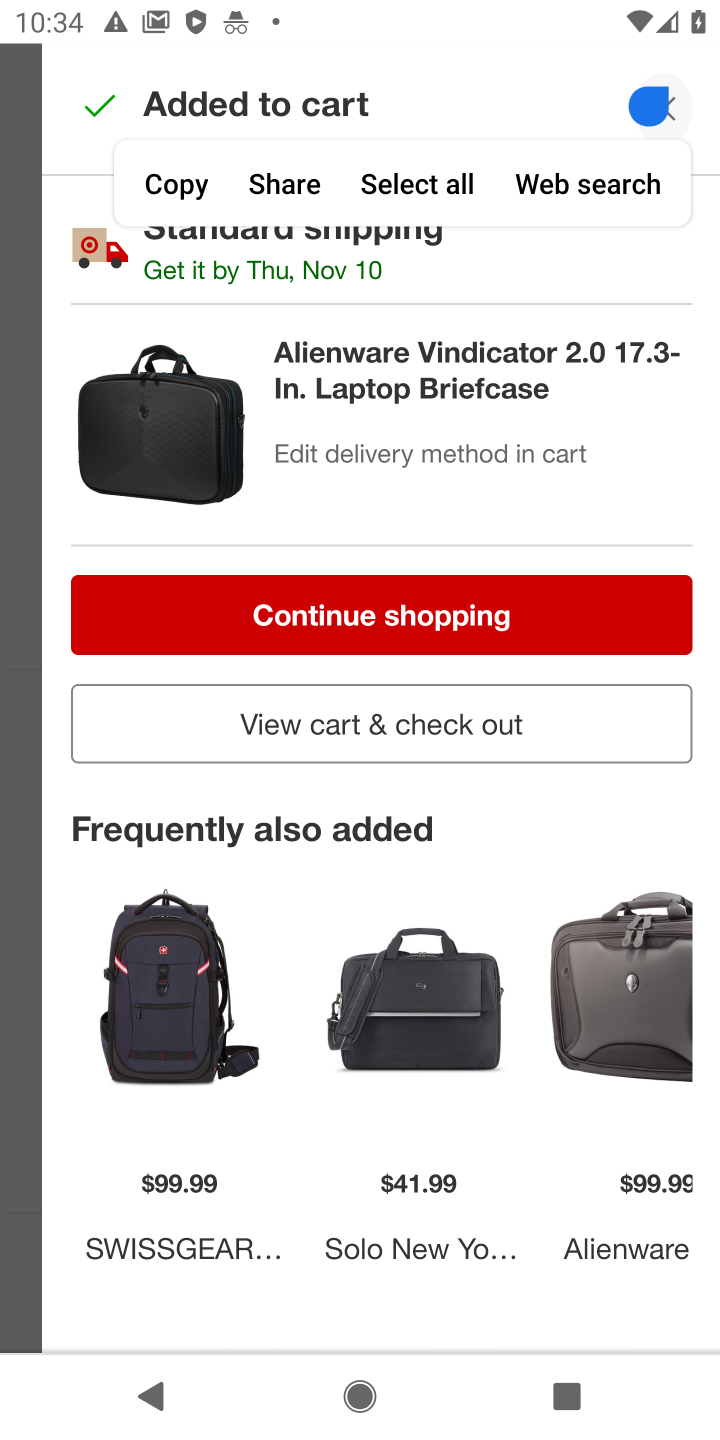
Step 31: task complete